Your task to perform on an android device: Search for dell xps on costco, select the first entry, and add it to the cart. Image 0: 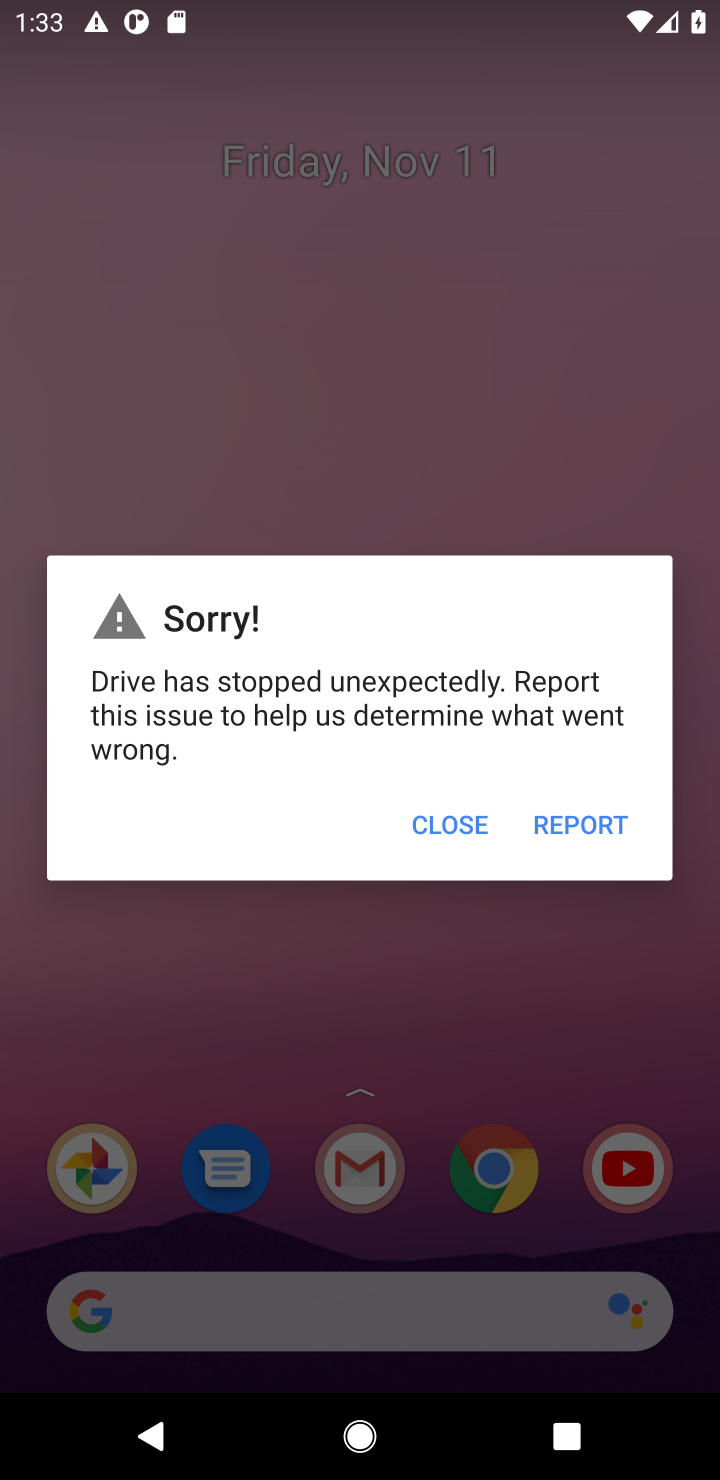
Step 0: press home button
Your task to perform on an android device: Search for dell xps on costco, select the first entry, and add it to the cart. Image 1: 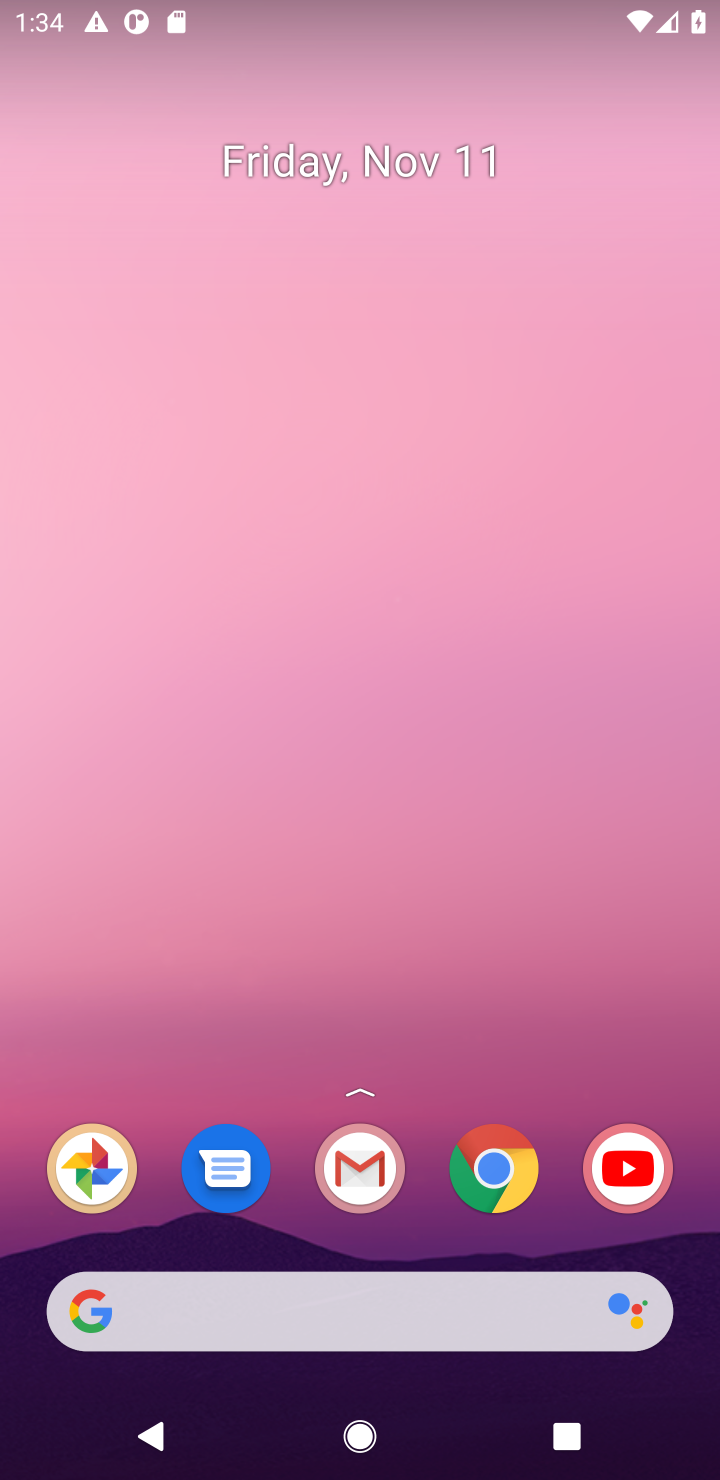
Step 1: click (487, 1191)
Your task to perform on an android device: Search for dell xps on costco, select the first entry, and add it to the cart. Image 2: 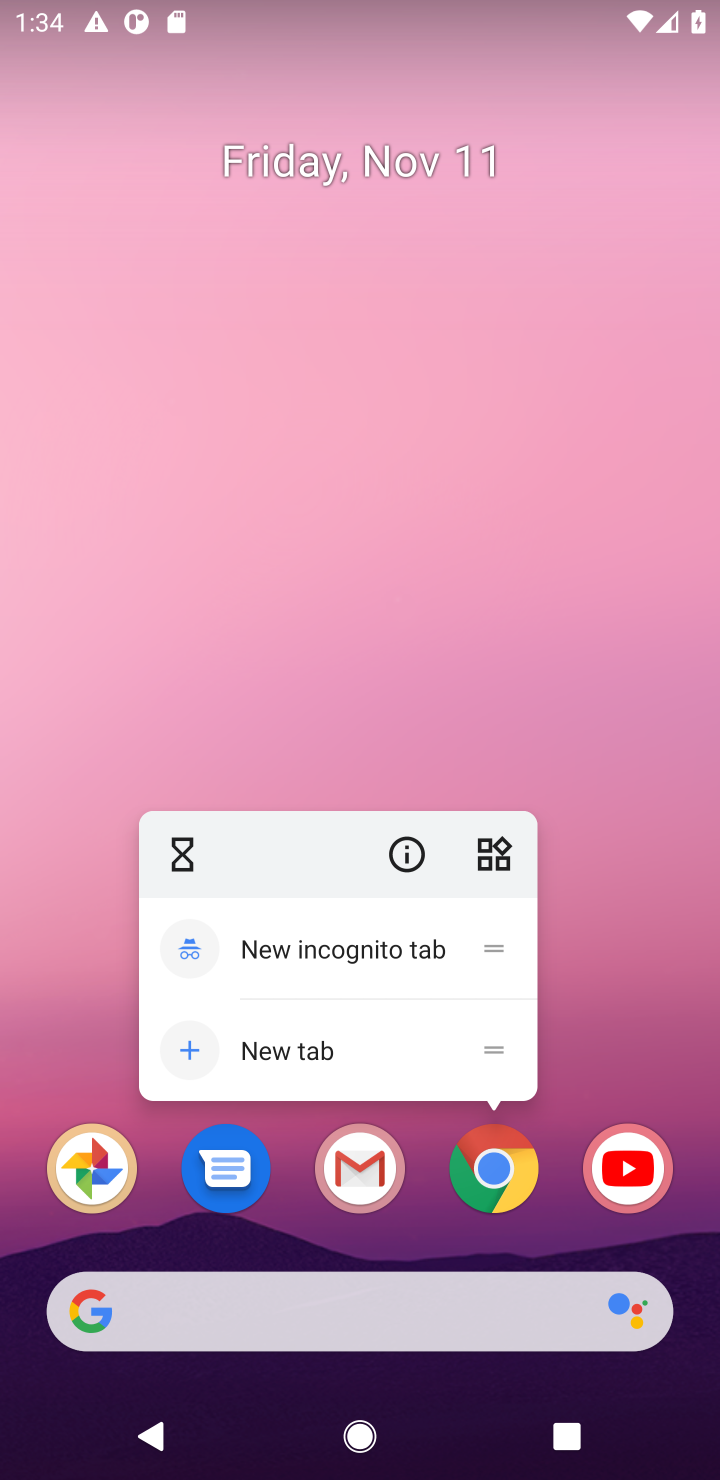
Step 2: click (490, 1186)
Your task to perform on an android device: Search for dell xps on costco, select the first entry, and add it to the cart. Image 3: 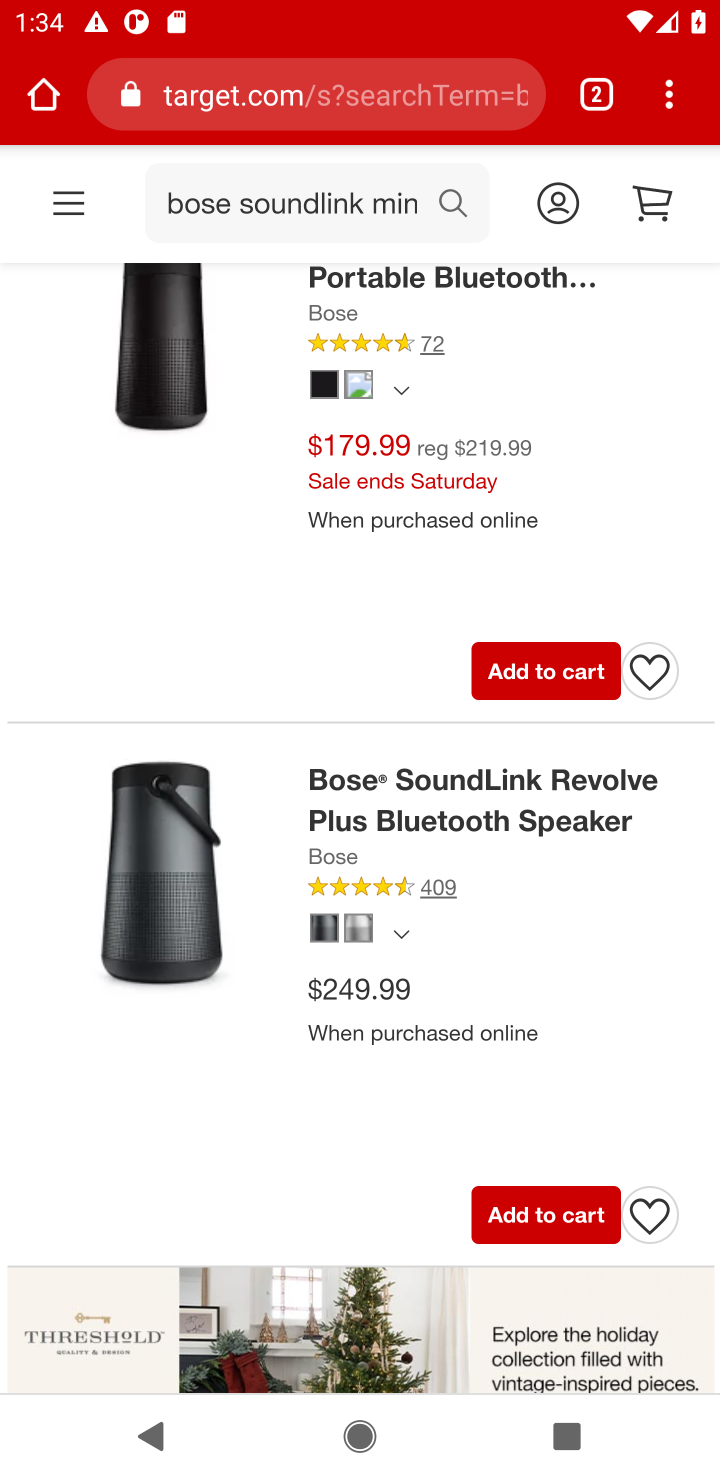
Step 3: click (305, 102)
Your task to perform on an android device: Search for dell xps on costco, select the first entry, and add it to the cart. Image 4: 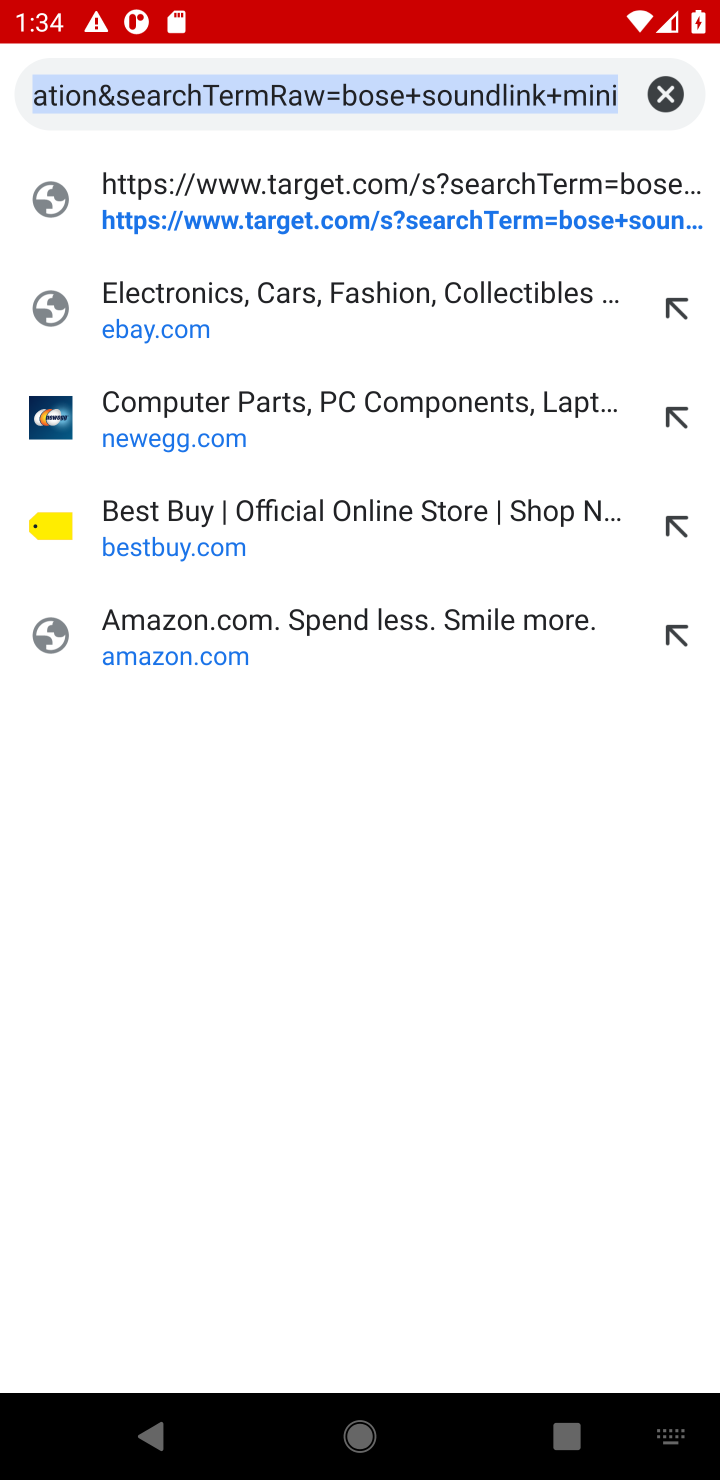
Step 4: type "costco.com"
Your task to perform on an android device: Search for dell xps on costco, select the first entry, and add it to the cart. Image 5: 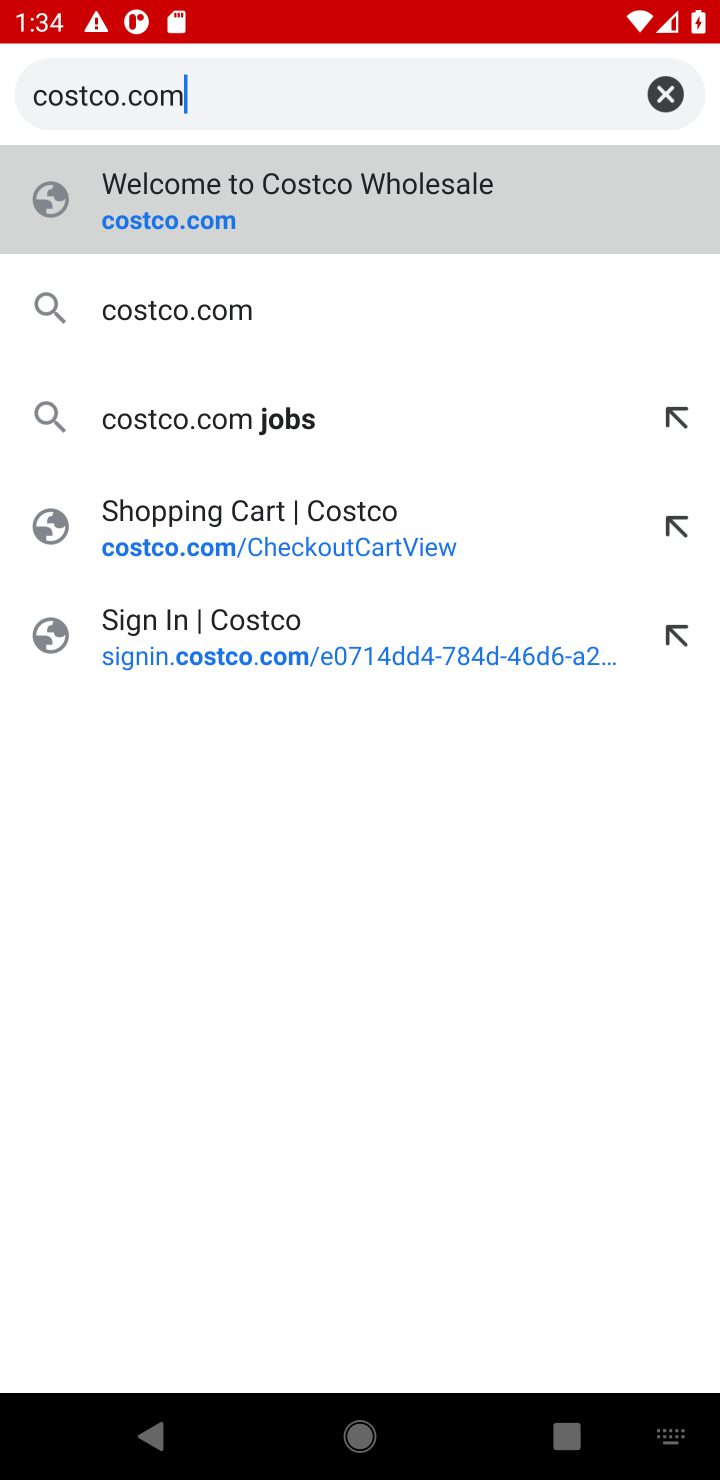
Step 5: click (197, 216)
Your task to perform on an android device: Search for dell xps on costco, select the first entry, and add it to the cart. Image 6: 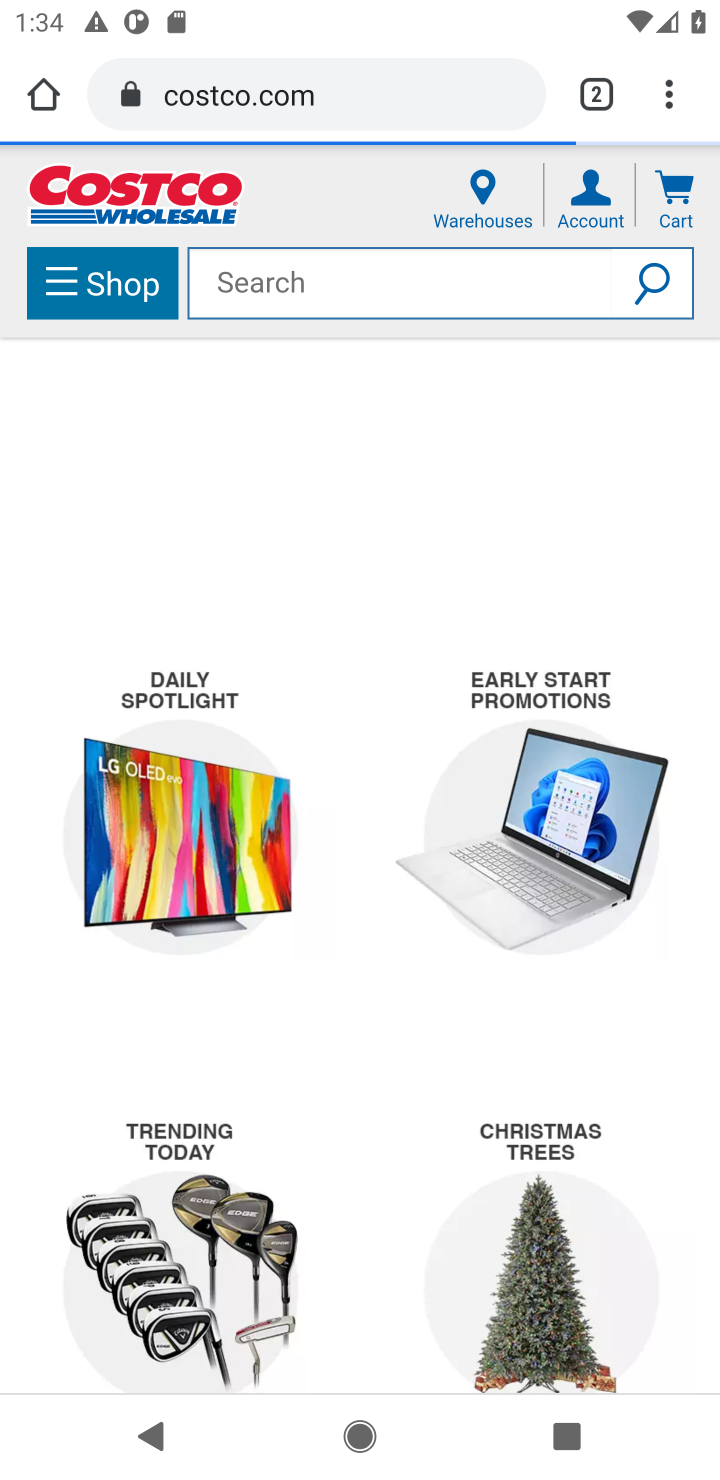
Step 6: click (311, 281)
Your task to perform on an android device: Search for dell xps on costco, select the first entry, and add it to the cart. Image 7: 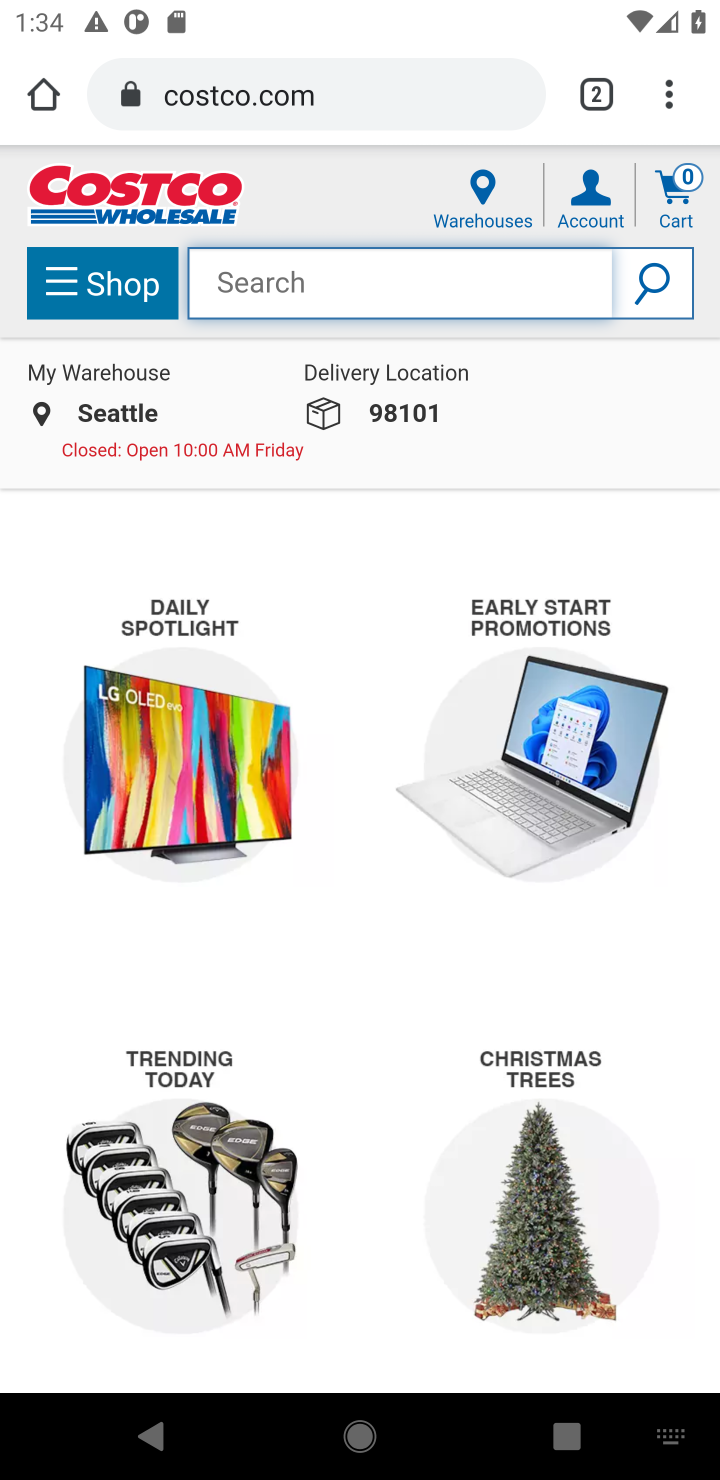
Step 7: type "dell xps"
Your task to perform on an android device: Search for dell xps on costco, select the first entry, and add it to the cart. Image 8: 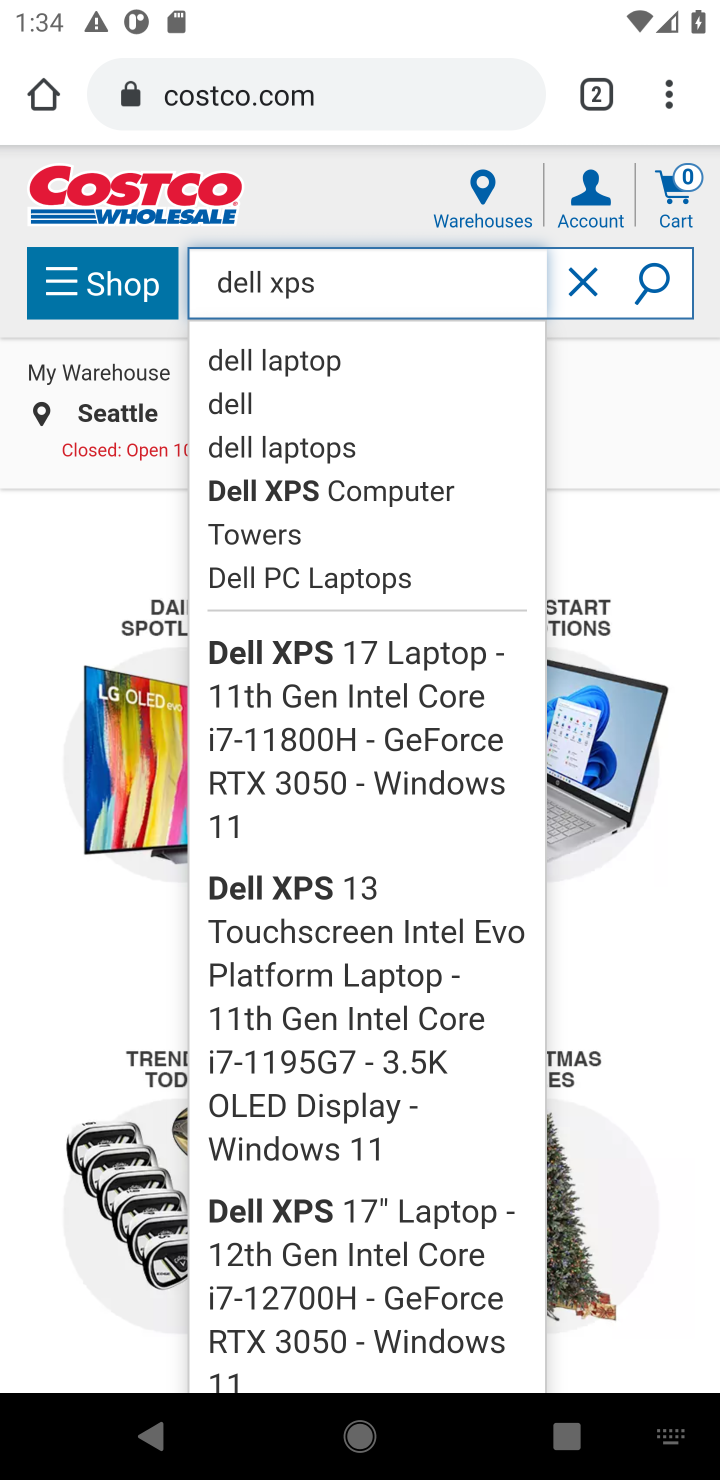
Step 8: click (634, 285)
Your task to perform on an android device: Search for dell xps on costco, select the first entry, and add it to the cart. Image 9: 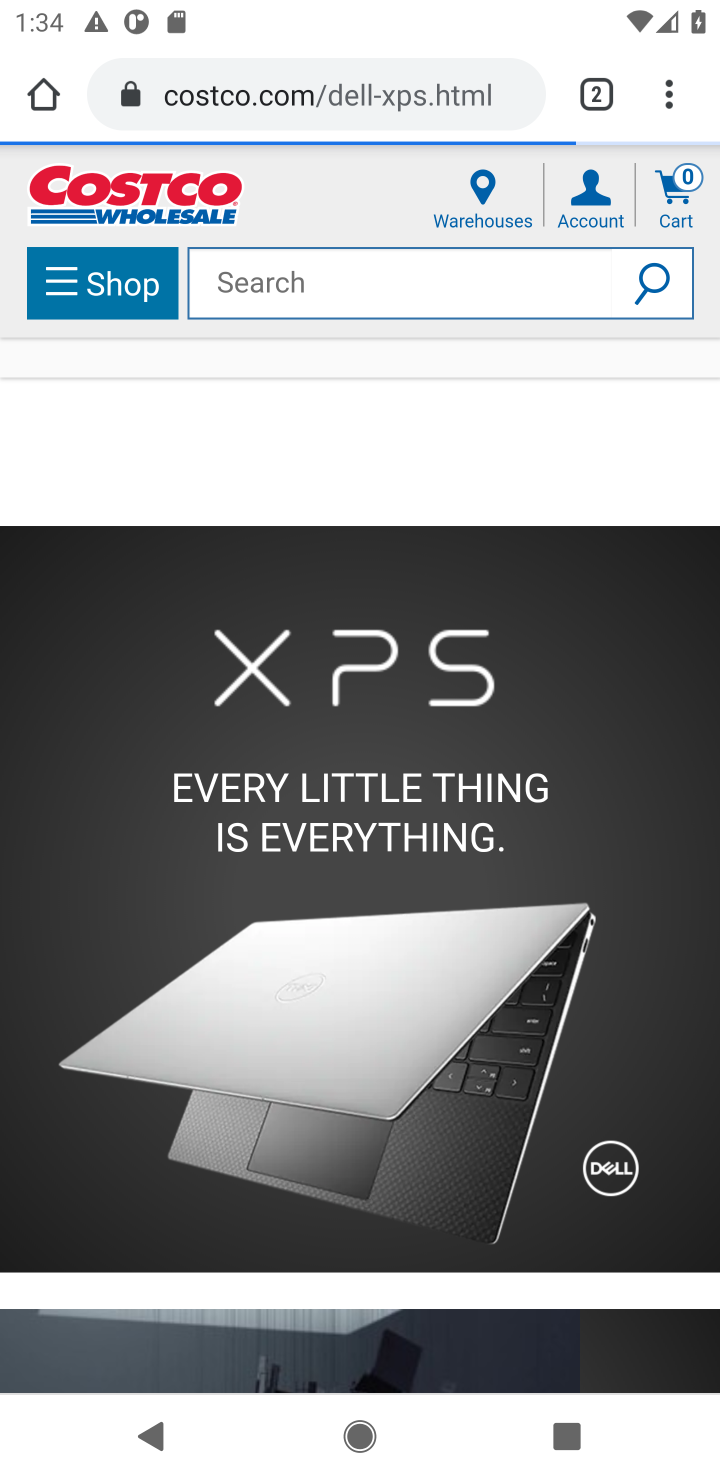
Step 9: task complete